Your task to perform on an android device: turn on improve location accuracy Image 0: 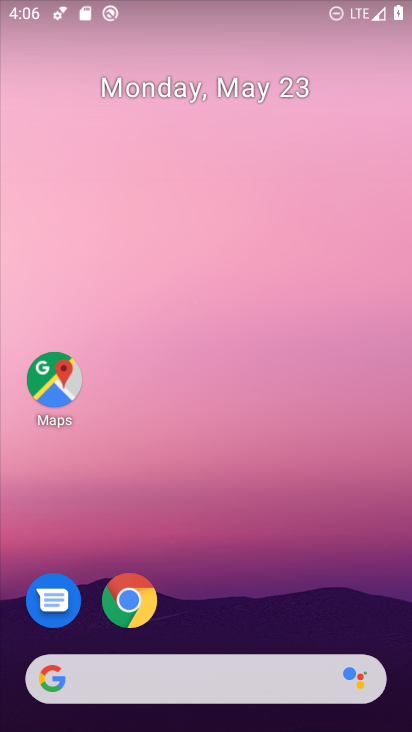
Step 0: drag from (301, 637) to (369, 0)
Your task to perform on an android device: turn on improve location accuracy Image 1: 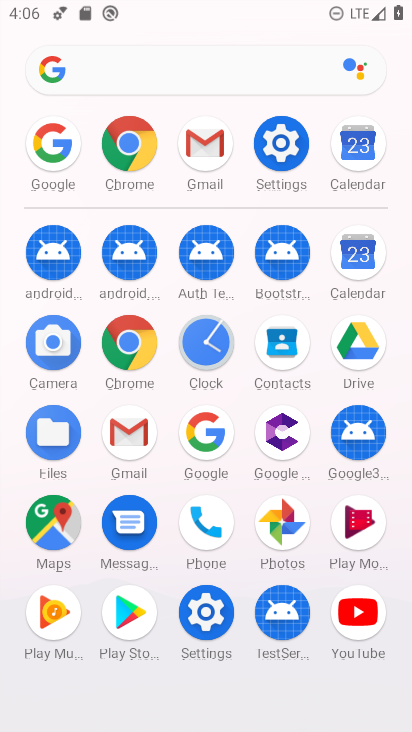
Step 1: click (275, 147)
Your task to perform on an android device: turn on improve location accuracy Image 2: 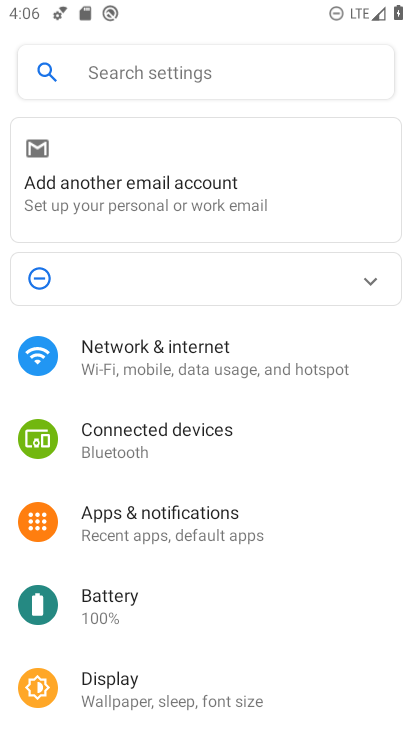
Step 2: drag from (263, 590) to (263, 234)
Your task to perform on an android device: turn on improve location accuracy Image 3: 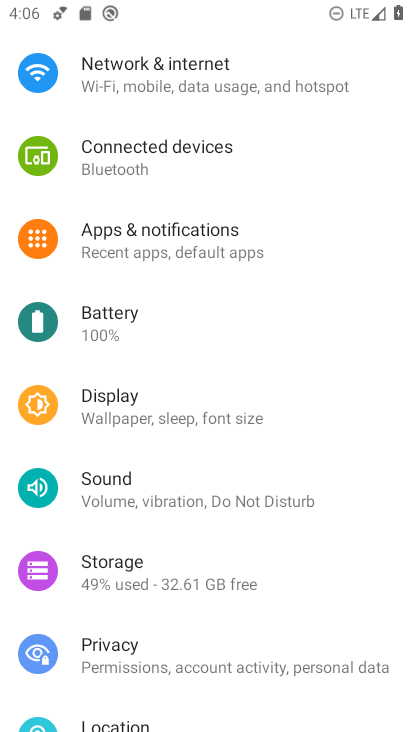
Step 3: drag from (171, 606) to (189, 337)
Your task to perform on an android device: turn on improve location accuracy Image 4: 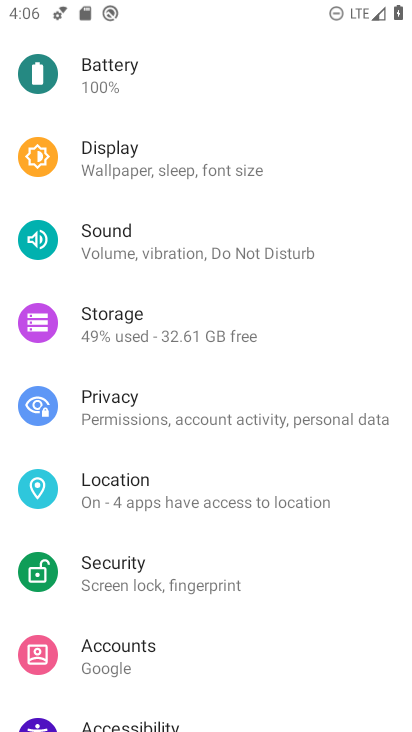
Step 4: click (106, 497)
Your task to perform on an android device: turn on improve location accuracy Image 5: 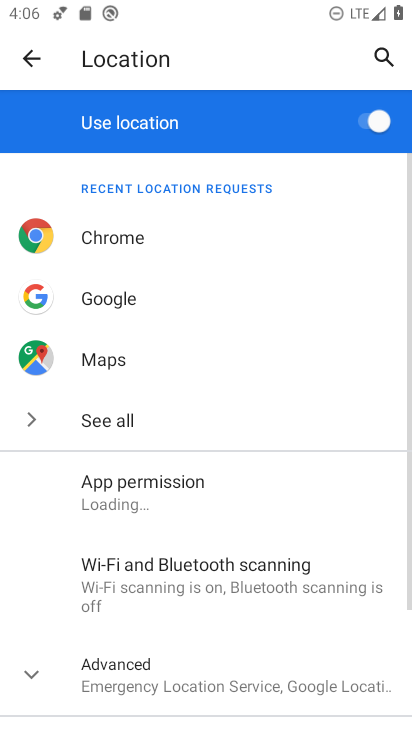
Step 5: drag from (169, 568) to (175, 358)
Your task to perform on an android device: turn on improve location accuracy Image 6: 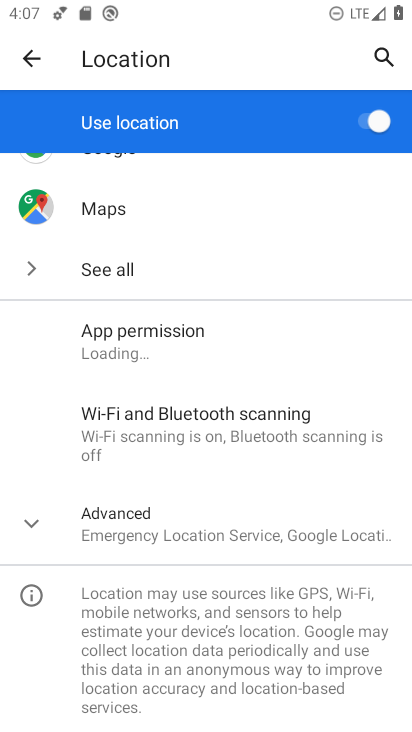
Step 6: click (22, 530)
Your task to perform on an android device: turn on improve location accuracy Image 7: 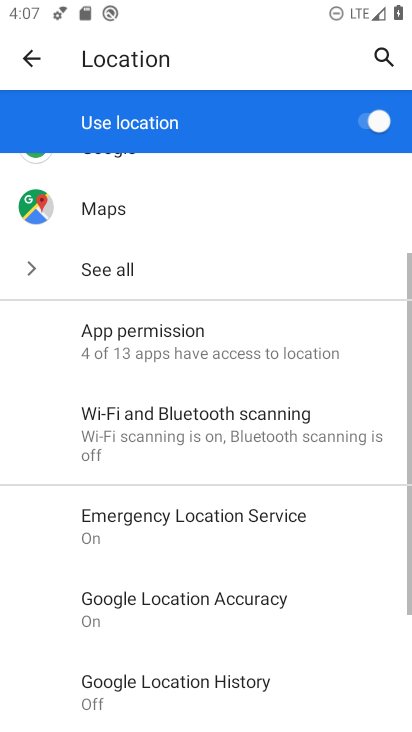
Step 7: drag from (202, 582) to (210, 418)
Your task to perform on an android device: turn on improve location accuracy Image 8: 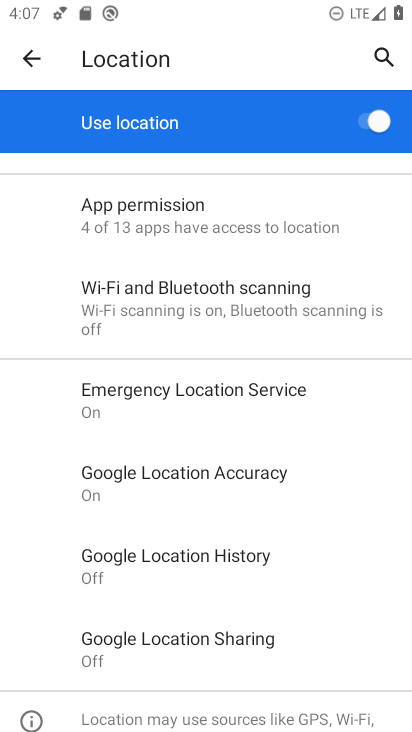
Step 8: click (176, 474)
Your task to perform on an android device: turn on improve location accuracy Image 9: 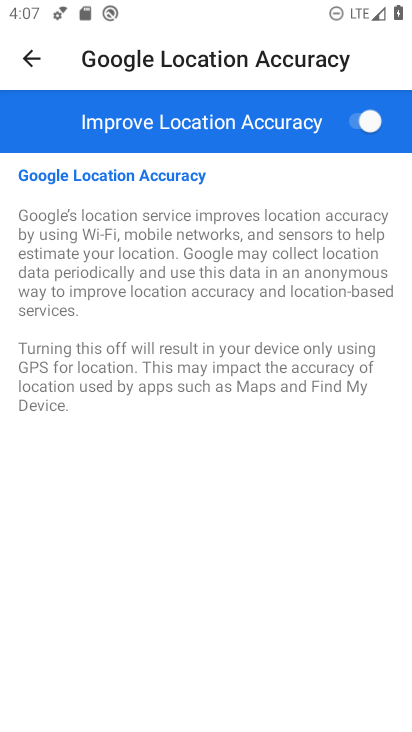
Step 9: task complete